Your task to perform on an android device: Look up the best selling patio furniture on Home Depot Image 0: 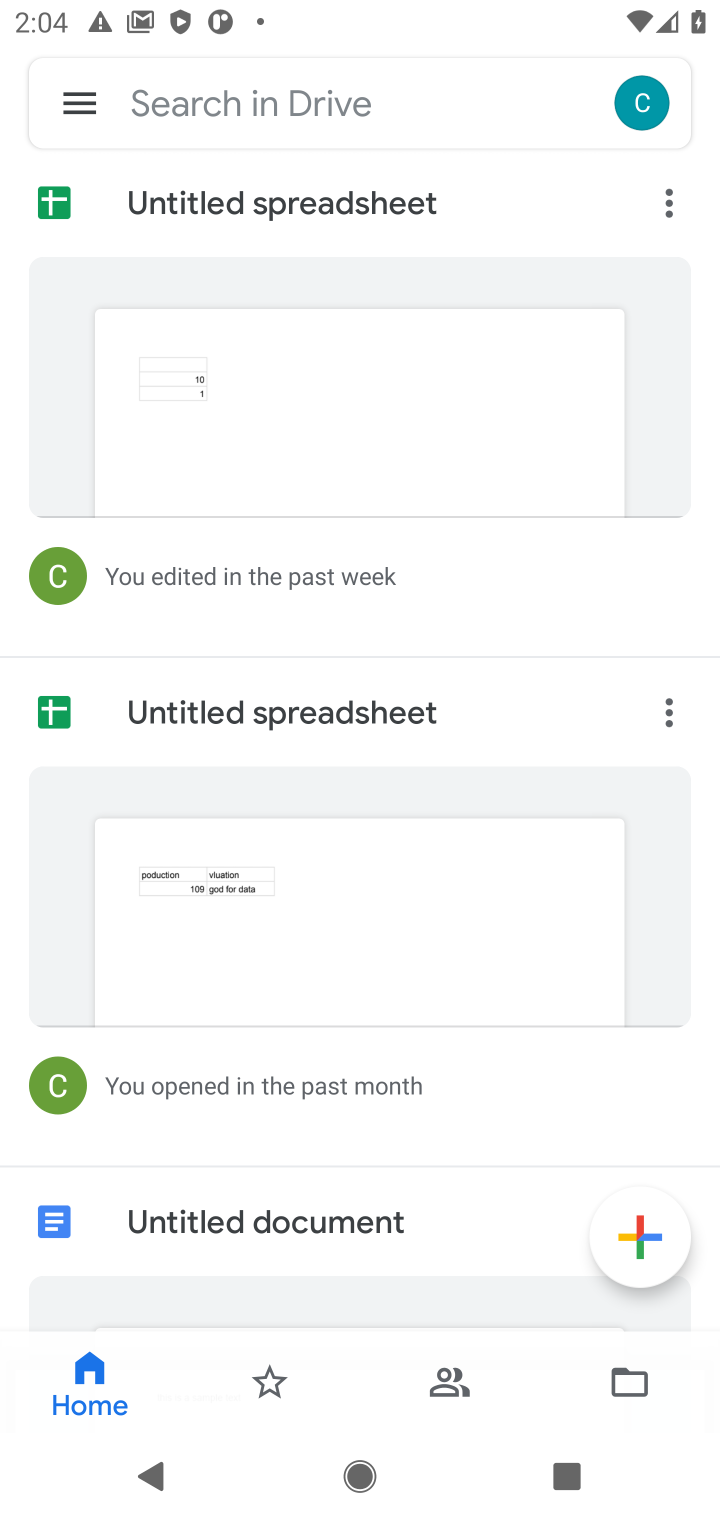
Step 0: press home button
Your task to perform on an android device: Look up the best selling patio furniture on Home Depot Image 1: 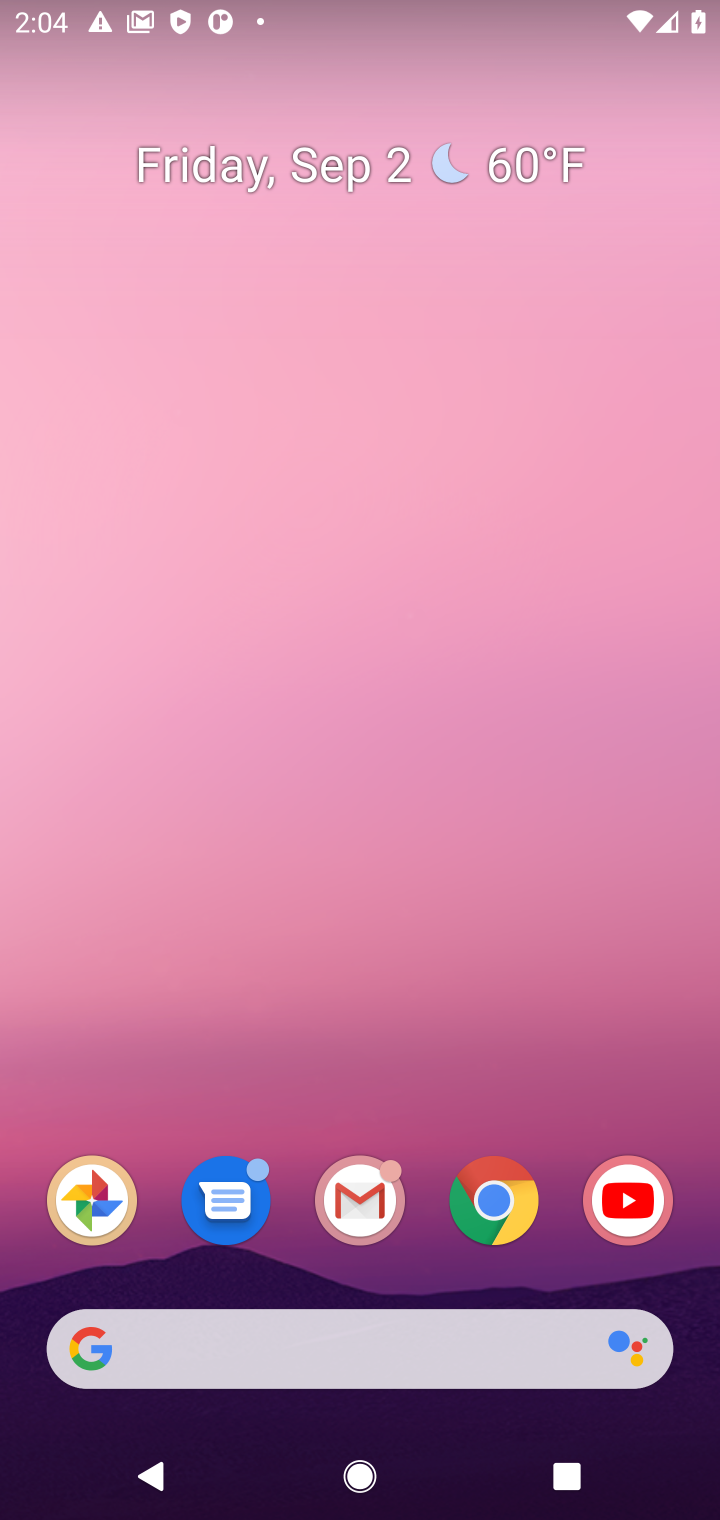
Step 1: click (489, 1201)
Your task to perform on an android device: Look up the best selling patio furniture on Home Depot Image 2: 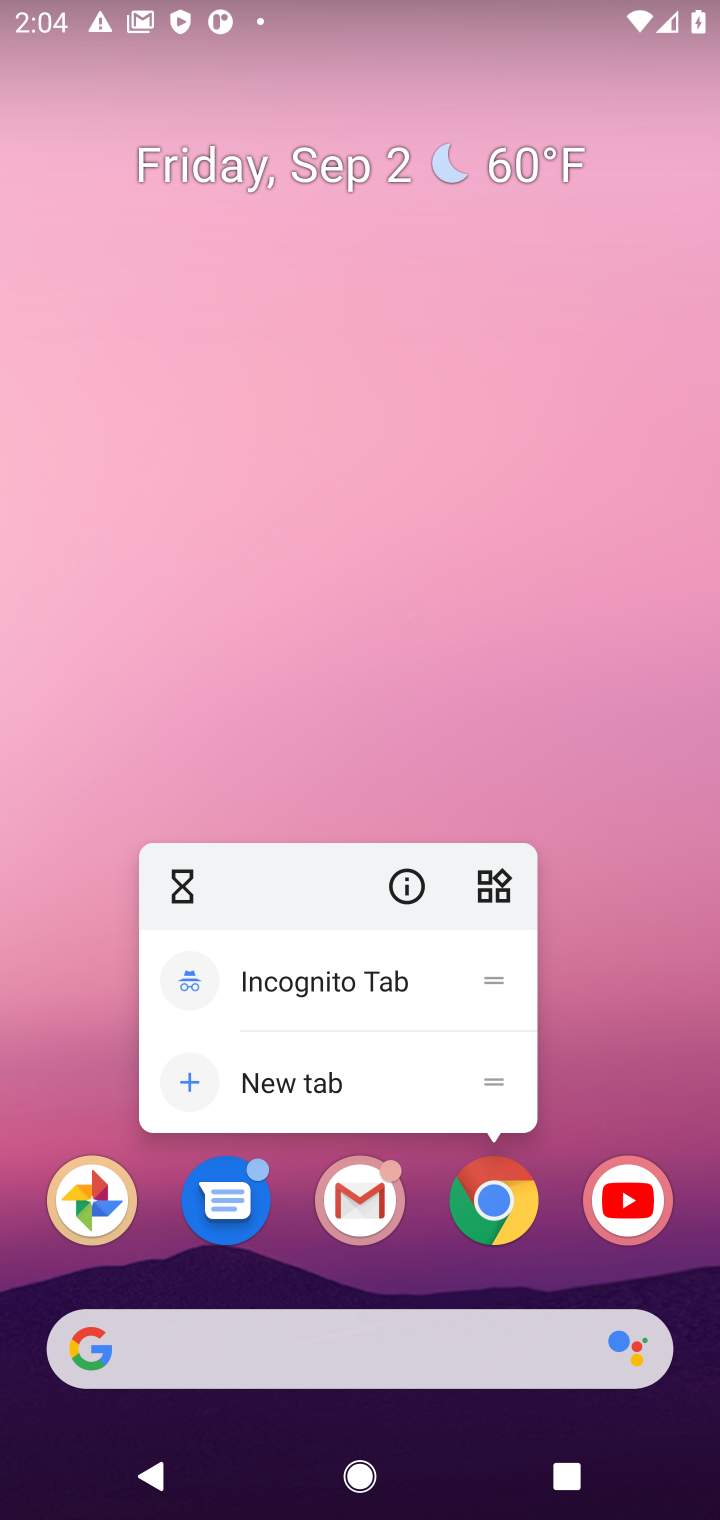
Step 2: click (490, 1208)
Your task to perform on an android device: Look up the best selling patio furniture on Home Depot Image 3: 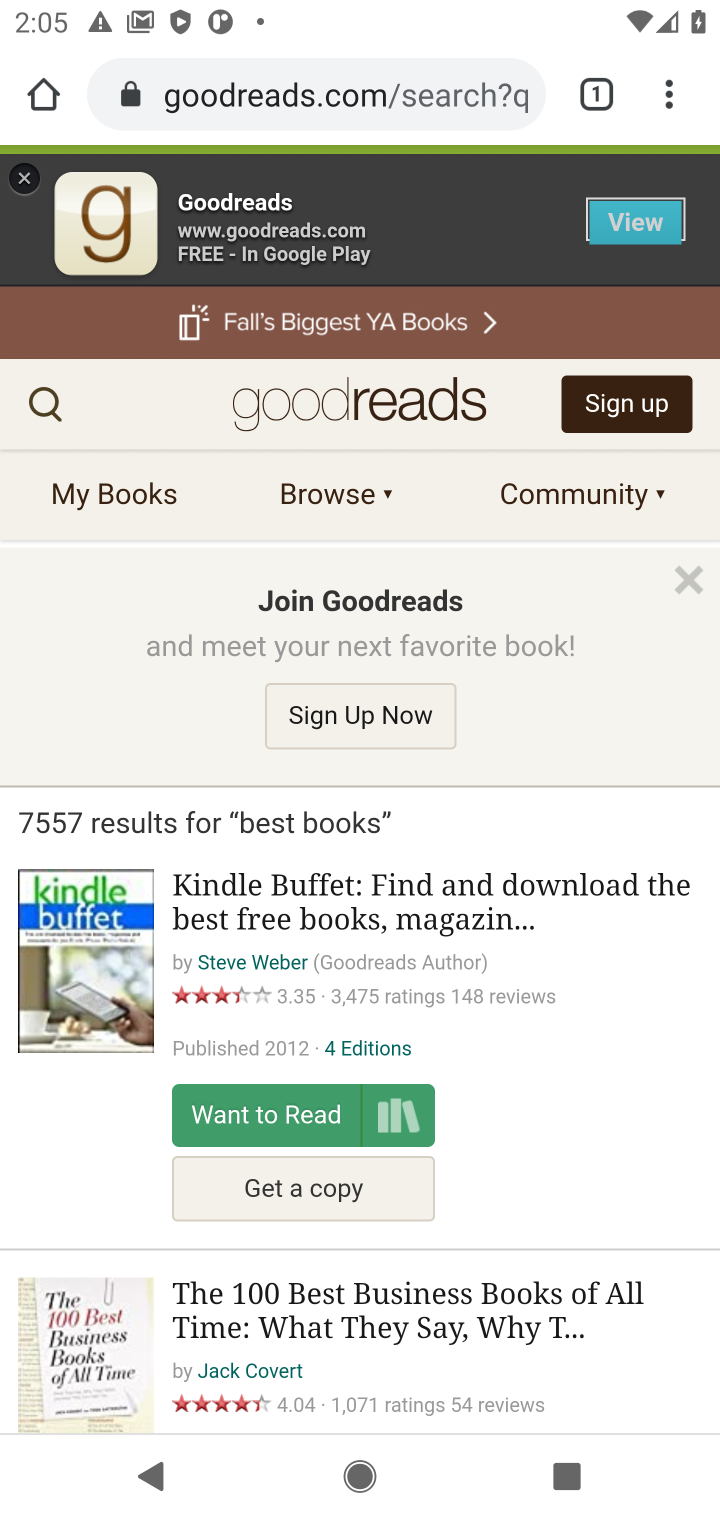
Step 3: click (438, 90)
Your task to perform on an android device: Look up the best selling patio furniture on Home Depot Image 4: 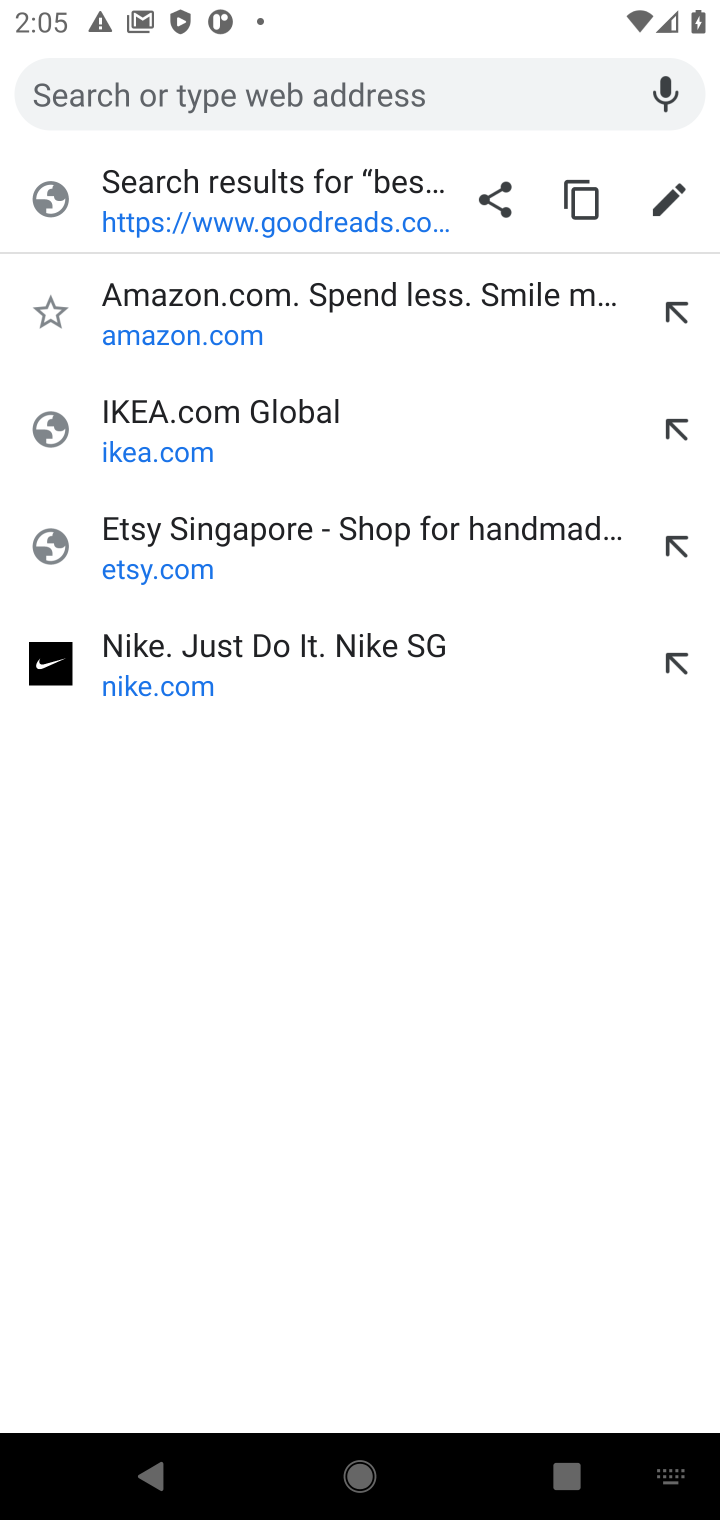
Step 4: type "Home Depot"
Your task to perform on an android device: Look up the best selling patio furniture on Home Depot Image 5: 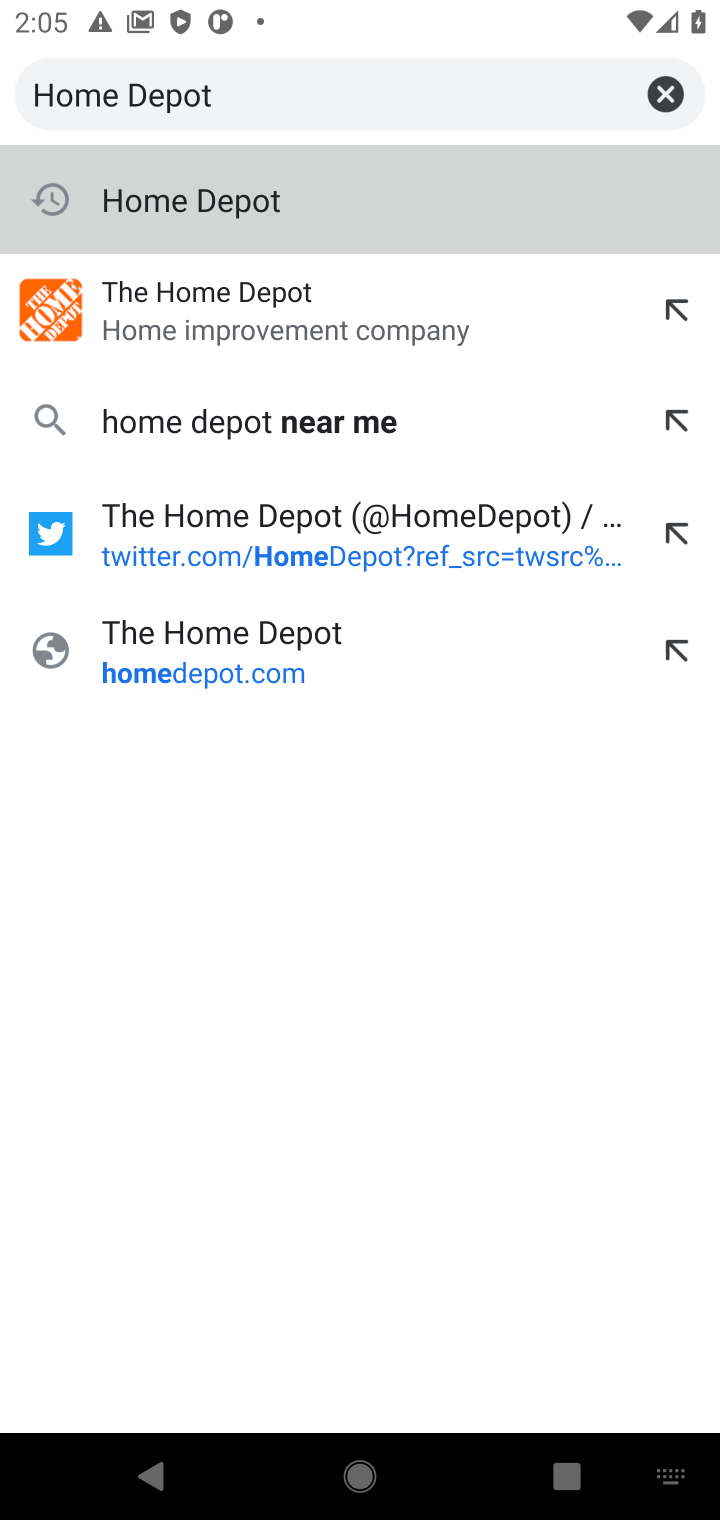
Step 5: press enter
Your task to perform on an android device: Look up the best selling patio furniture on Home Depot Image 6: 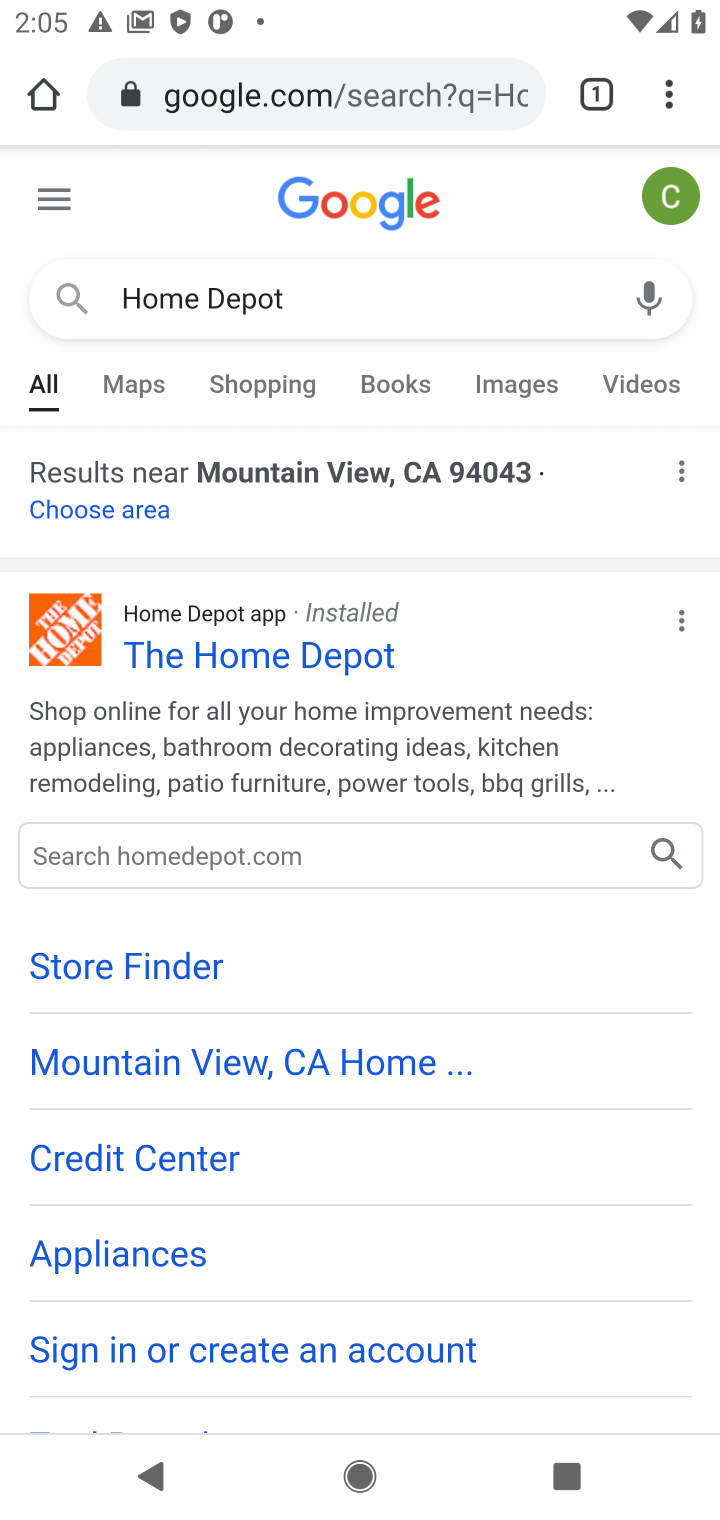
Step 6: drag from (378, 1182) to (492, 342)
Your task to perform on an android device: Look up the best selling patio furniture on Home Depot Image 7: 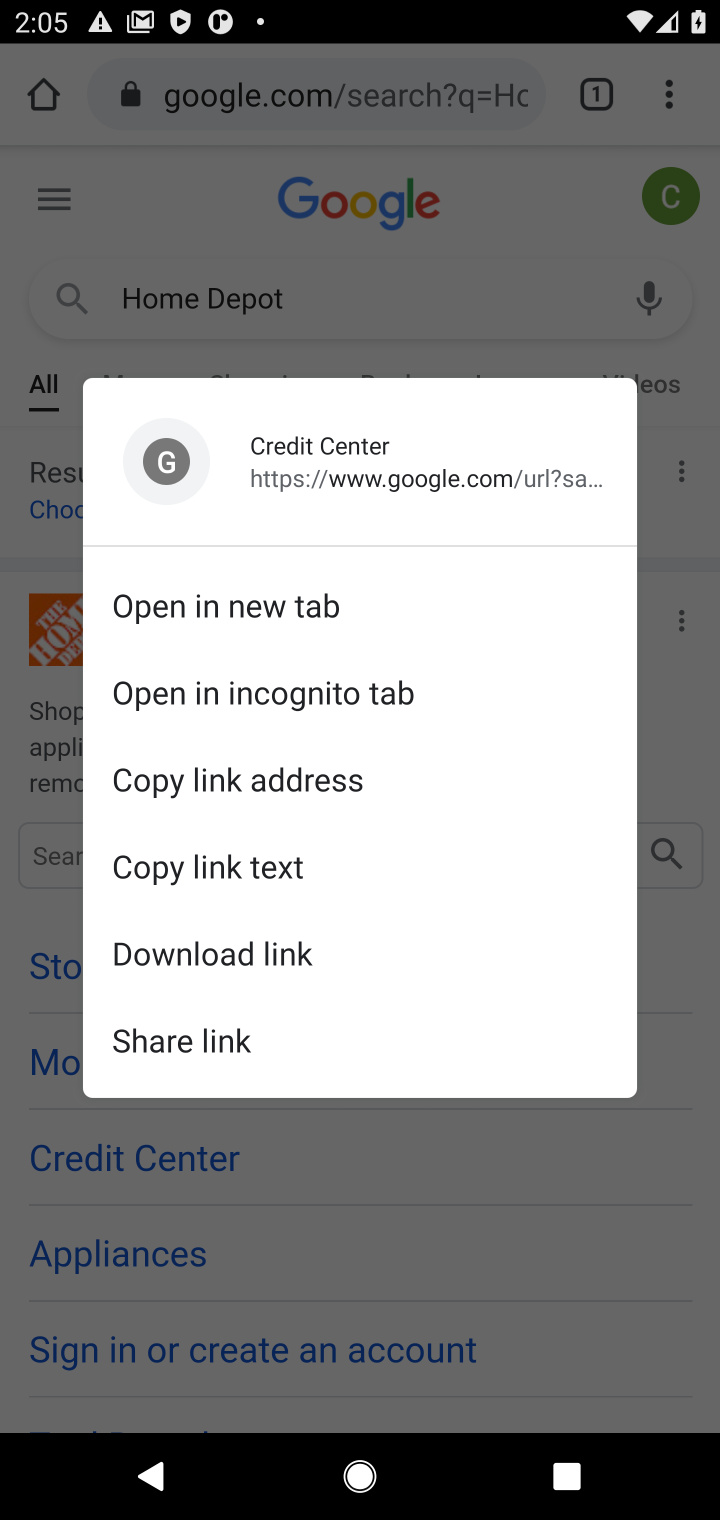
Step 7: click (674, 1217)
Your task to perform on an android device: Look up the best selling patio furniture on Home Depot Image 8: 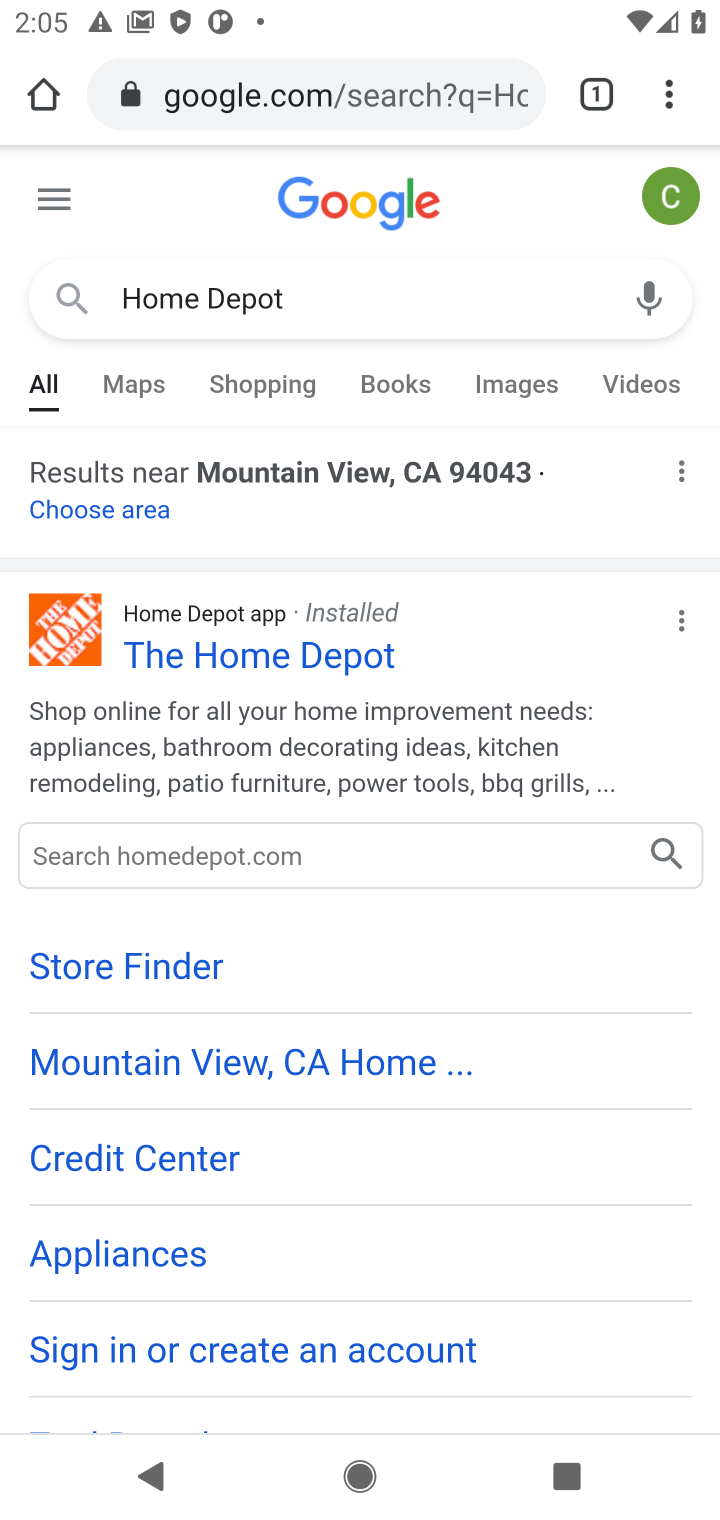
Step 8: task complete